Your task to perform on an android device: What's the weather? Image 0: 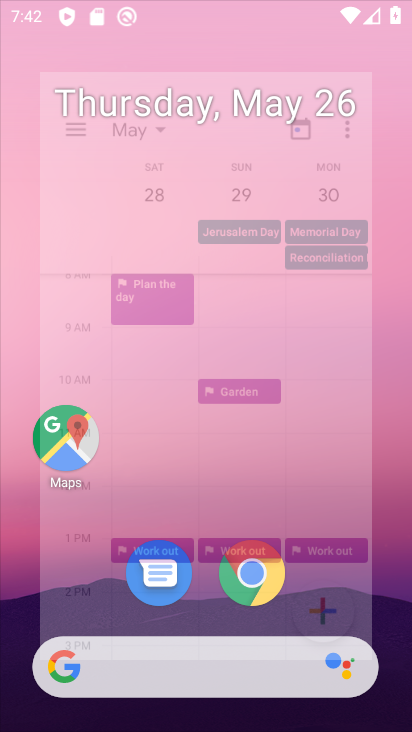
Step 0: drag from (341, 545) to (201, 62)
Your task to perform on an android device: What's the weather? Image 1: 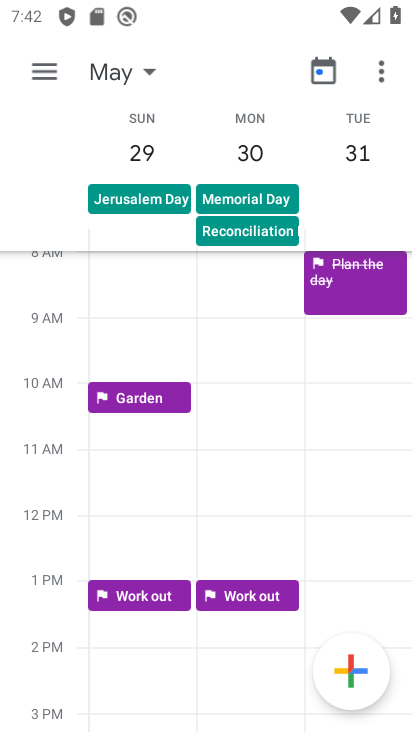
Step 1: press home button
Your task to perform on an android device: What's the weather? Image 2: 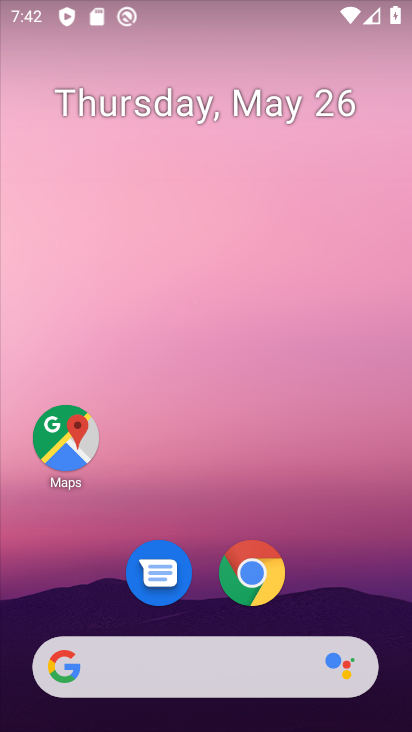
Step 2: drag from (340, 604) to (282, 168)
Your task to perform on an android device: What's the weather? Image 3: 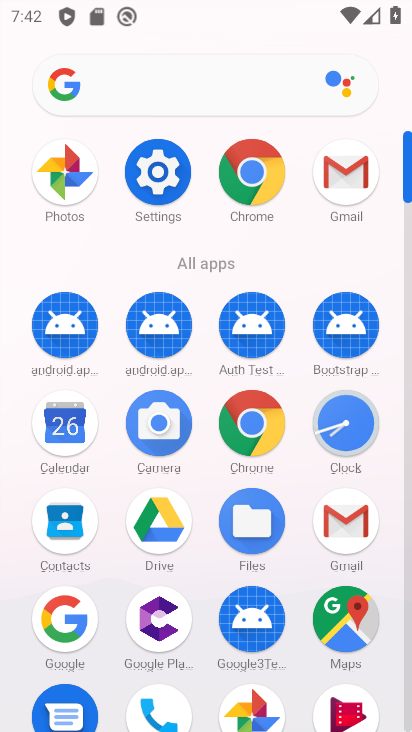
Step 3: click (263, 172)
Your task to perform on an android device: What's the weather? Image 4: 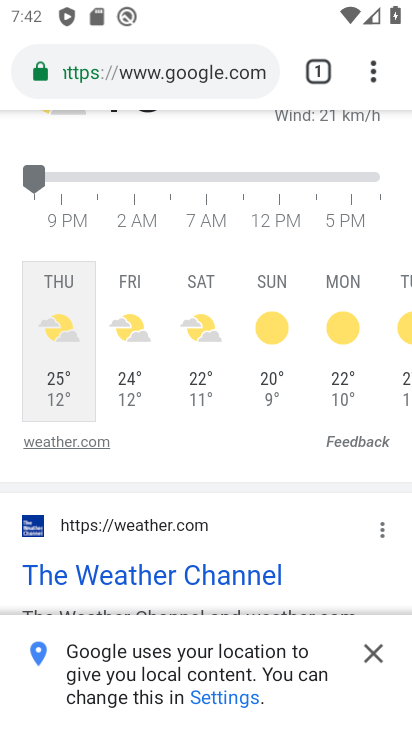
Step 4: drag from (195, 157) to (230, 402)
Your task to perform on an android device: What's the weather? Image 5: 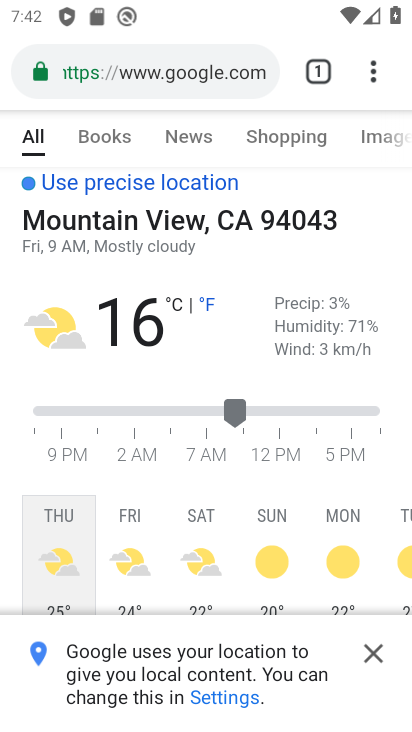
Step 5: click (77, 414)
Your task to perform on an android device: What's the weather? Image 6: 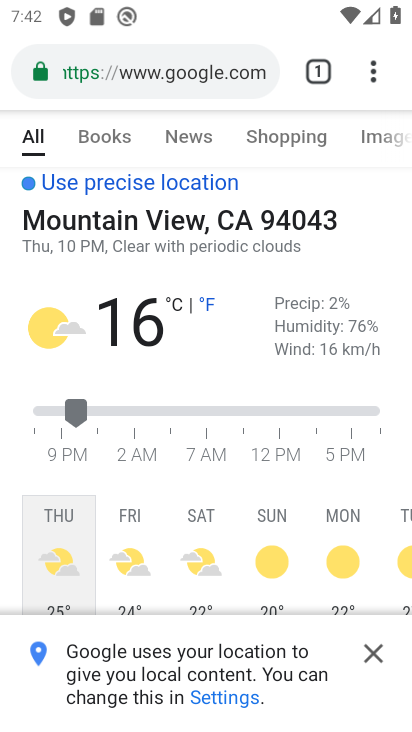
Step 6: task complete